Your task to perform on an android device: make emails show in primary in the gmail app Image 0: 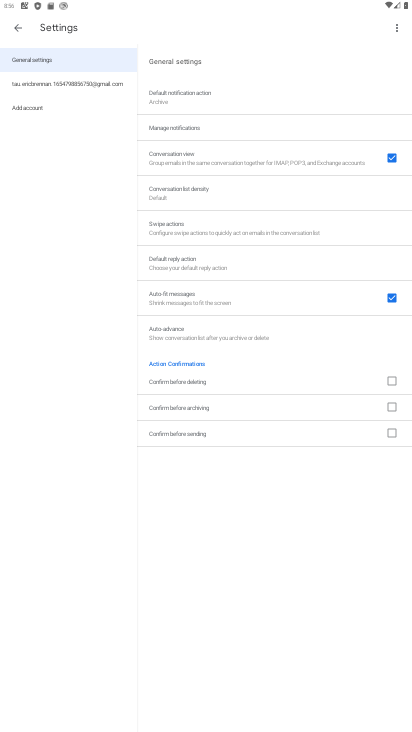
Step 0: press home button
Your task to perform on an android device: make emails show in primary in the gmail app Image 1: 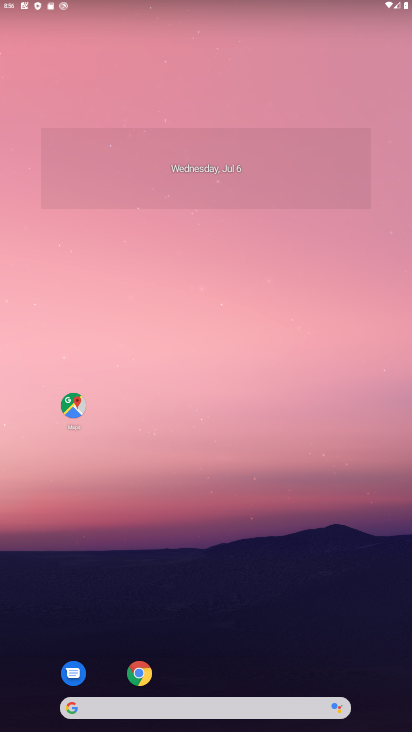
Step 1: drag from (261, 621) to (259, 203)
Your task to perform on an android device: make emails show in primary in the gmail app Image 2: 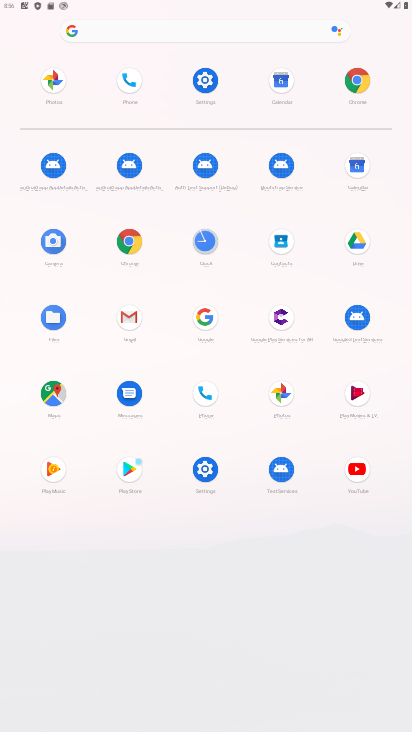
Step 2: click (134, 319)
Your task to perform on an android device: make emails show in primary in the gmail app Image 3: 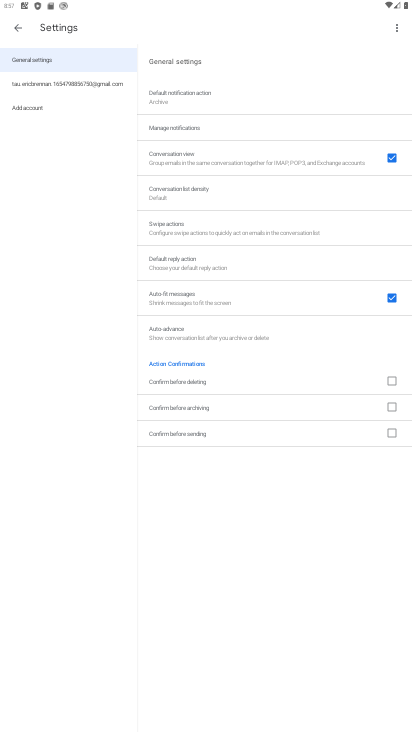
Step 3: click (13, 33)
Your task to perform on an android device: make emails show in primary in the gmail app Image 4: 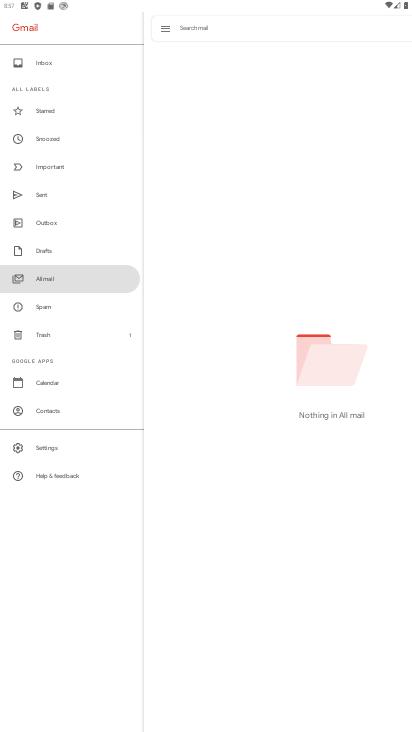
Step 4: drag from (55, 85) to (74, 447)
Your task to perform on an android device: make emails show in primary in the gmail app Image 5: 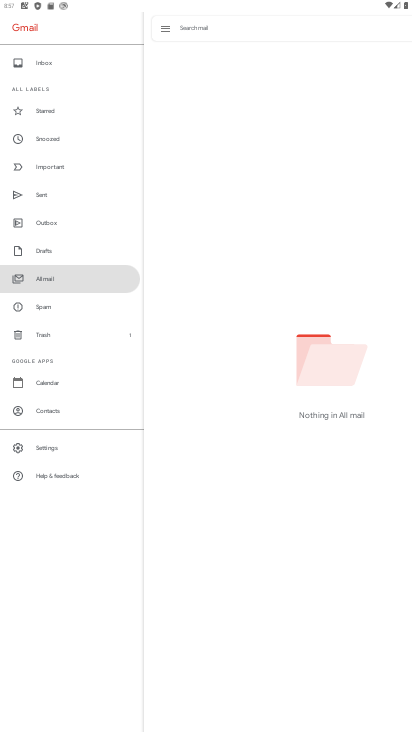
Step 5: click (64, 63)
Your task to perform on an android device: make emails show in primary in the gmail app Image 6: 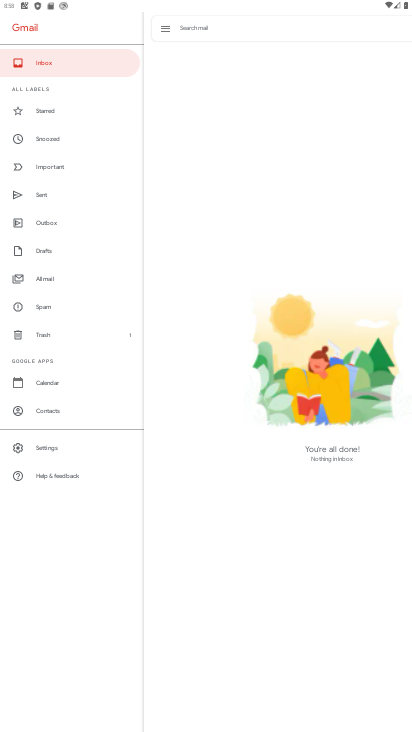
Step 6: task complete